Your task to perform on an android device: check out phone information Image 0: 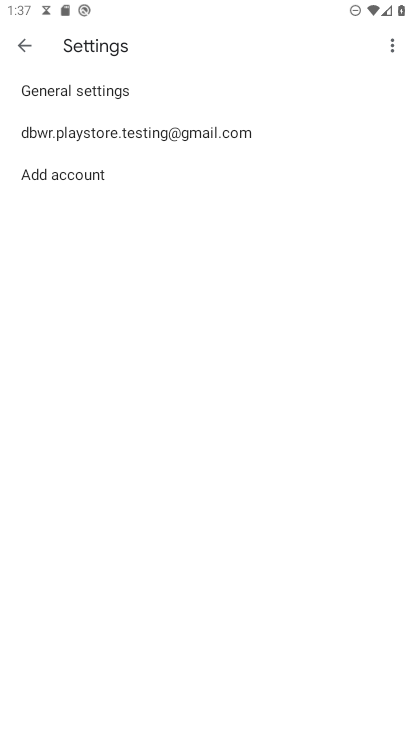
Step 0: press home button
Your task to perform on an android device: check out phone information Image 1: 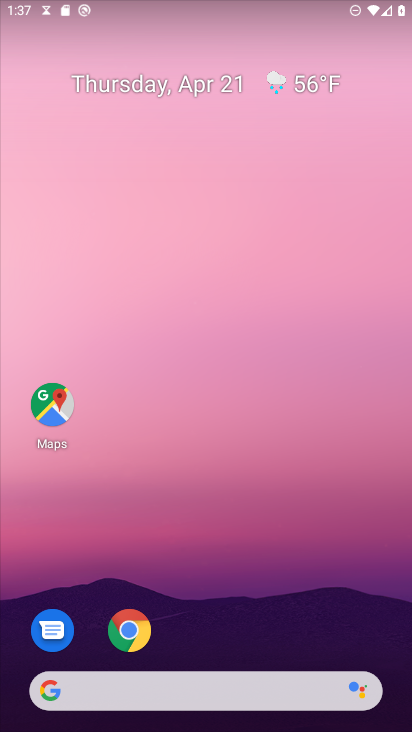
Step 1: drag from (223, 669) to (246, 162)
Your task to perform on an android device: check out phone information Image 2: 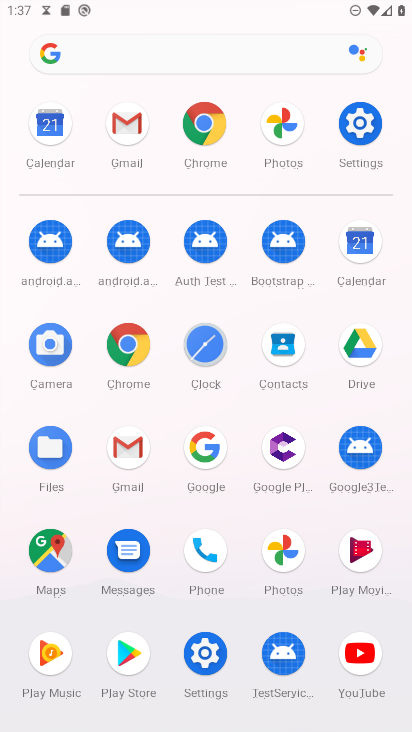
Step 2: click (206, 647)
Your task to perform on an android device: check out phone information Image 3: 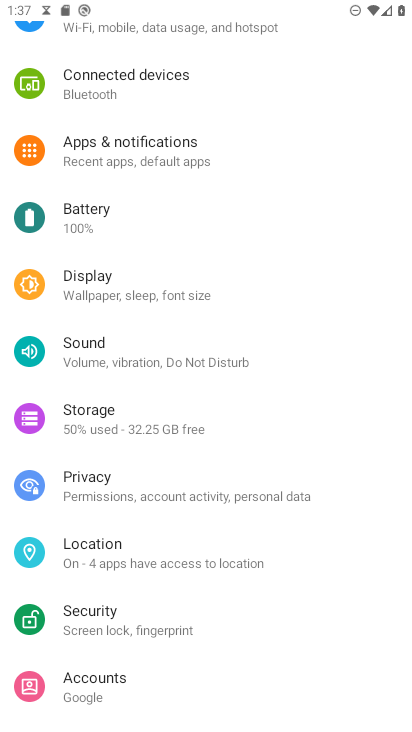
Step 3: drag from (120, 651) to (128, 152)
Your task to perform on an android device: check out phone information Image 4: 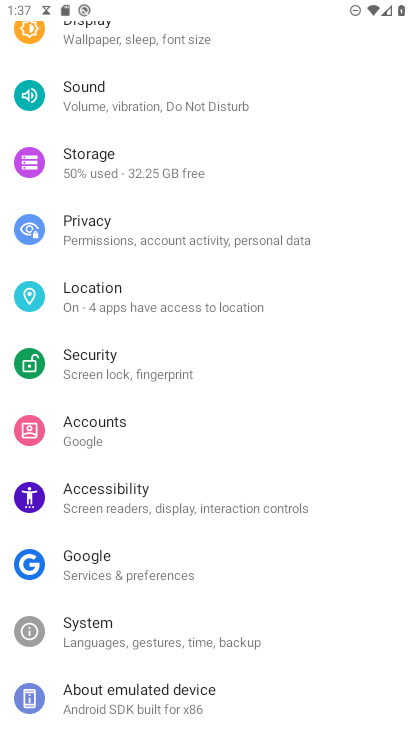
Step 4: click (159, 692)
Your task to perform on an android device: check out phone information Image 5: 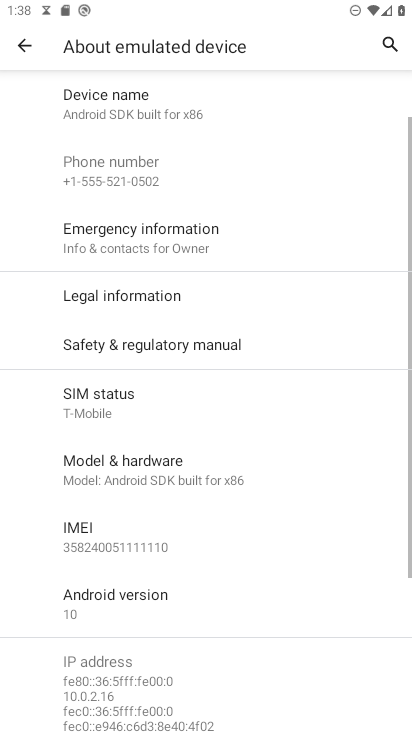
Step 5: task complete